Your task to perform on an android device: Open calendar and show me the fourth week of next month Image 0: 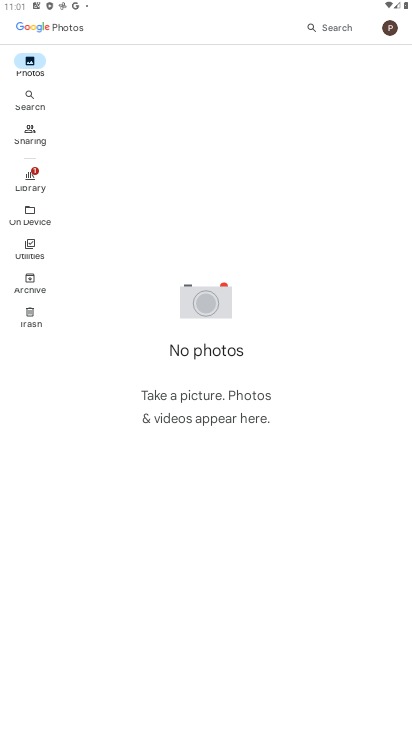
Step 0: press home button
Your task to perform on an android device: Open calendar and show me the fourth week of next month Image 1: 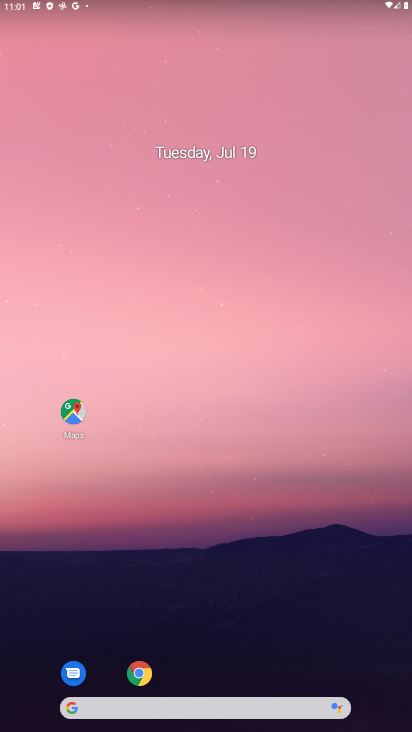
Step 1: drag from (226, 682) to (224, 9)
Your task to perform on an android device: Open calendar and show me the fourth week of next month Image 2: 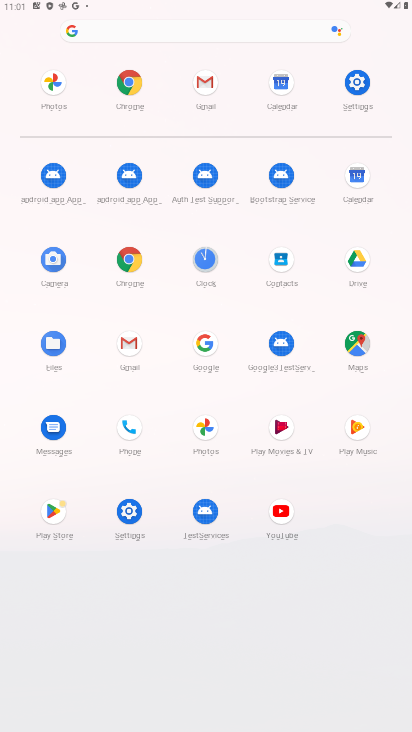
Step 2: click (351, 191)
Your task to perform on an android device: Open calendar and show me the fourth week of next month Image 3: 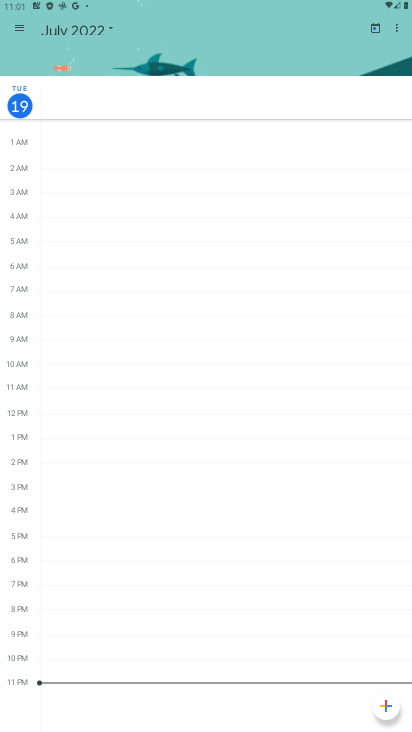
Step 3: click (71, 36)
Your task to perform on an android device: Open calendar and show me the fourth week of next month Image 4: 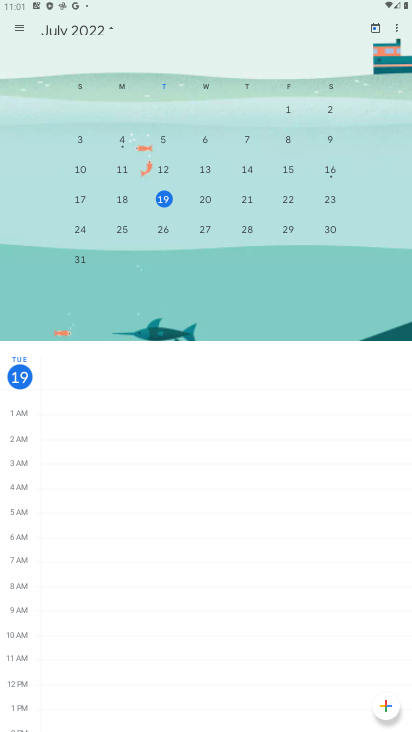
Step 4: click (247, 238)
Your task to perform on an android device: Open calendar and show me the fourth week of next month Image 5: 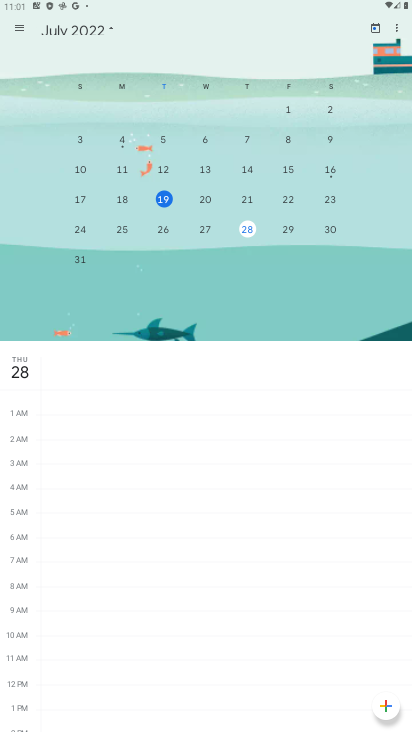
Step 5: task complete